Your task to perform on an android device: What's the weather today? Image 0: 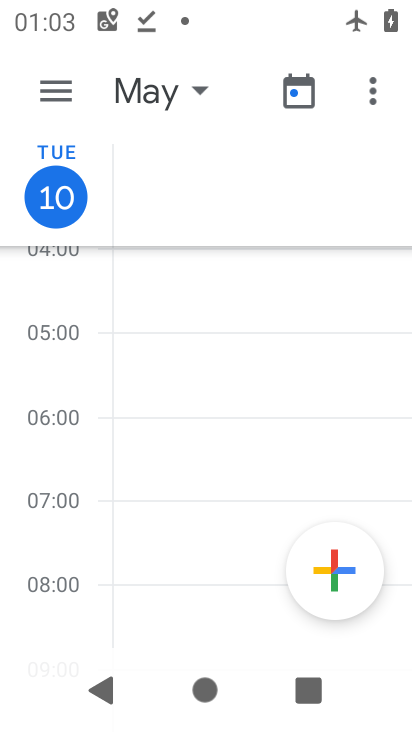
Step 0: press home button
Your task to perform on an android device: What's the weather today? Image 1: 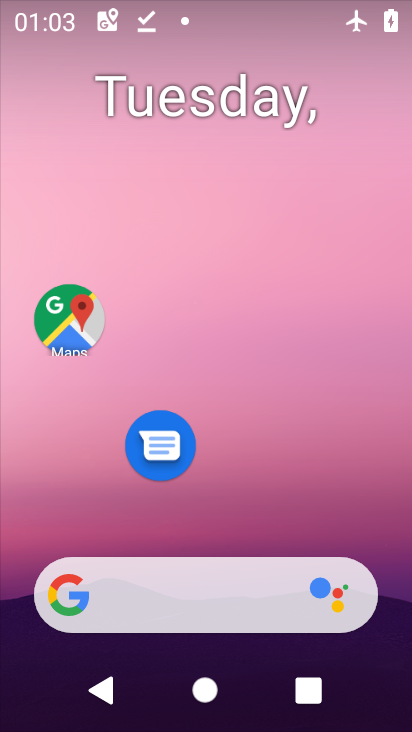
Step 1: click (247, 598)
Your task to perform on an android device: What's the weather today? Image 2: 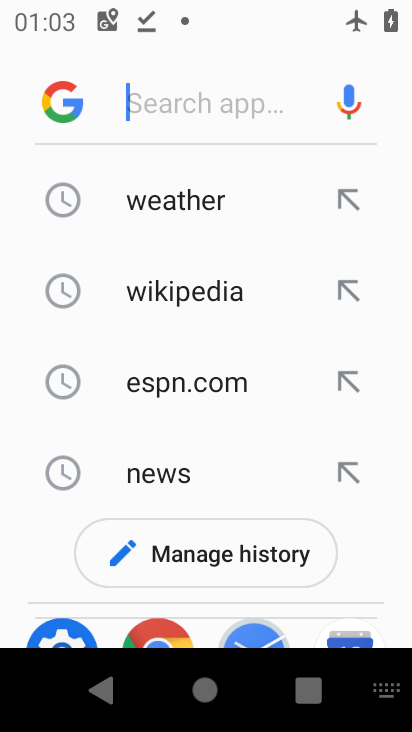
Step 2: click (181, 193)
Your task to perform on an android device: What's the weather today? Image 3: 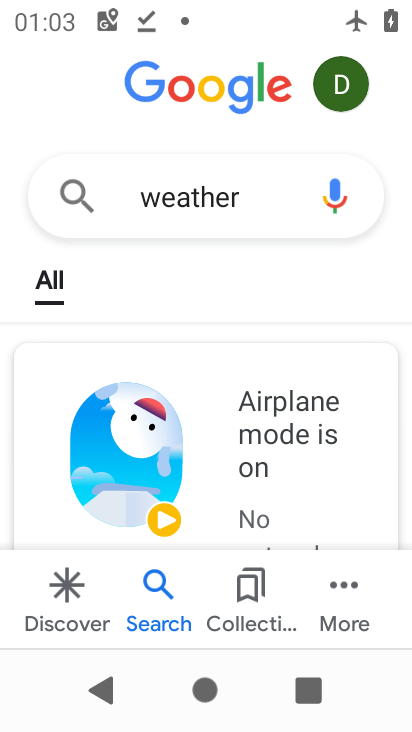
Step 3: task complete